Your task to perform on an android device: What time is it in London? Image 0: 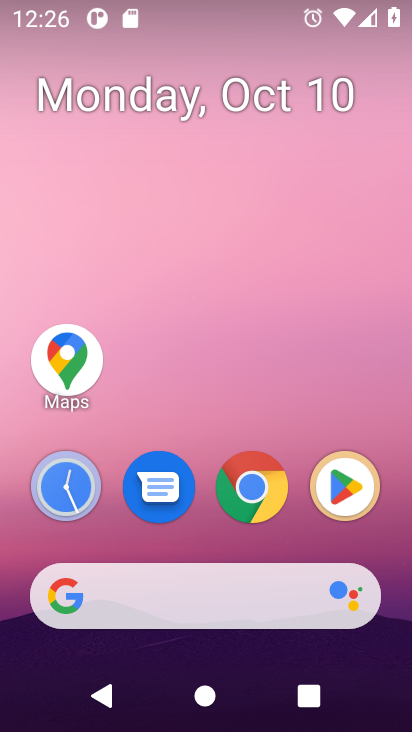
Step 0: drag from (218, 556) to (251, 39)
Your task to perform on an android device: What time is it in London? Image 1: 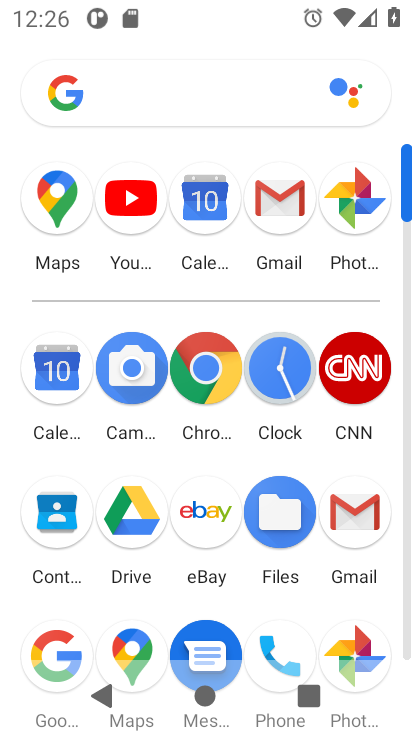
Step 1: click (54, 645)
Your task to perform on an android device: What time is it in London? Image 2: 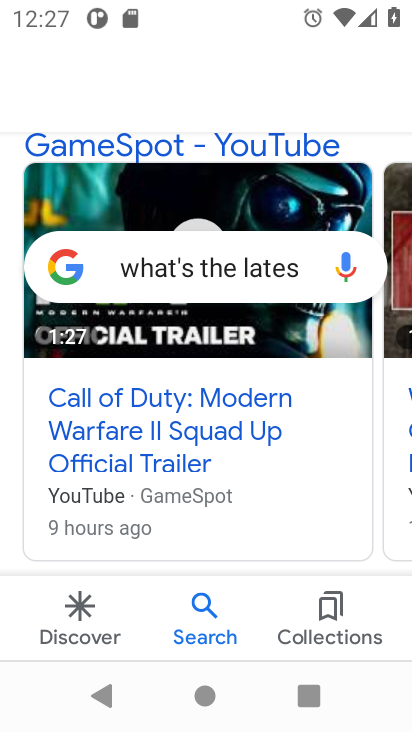
Step 2: click (234, 272)
Your task to perform on an android device: What time is it in London? Image 3: 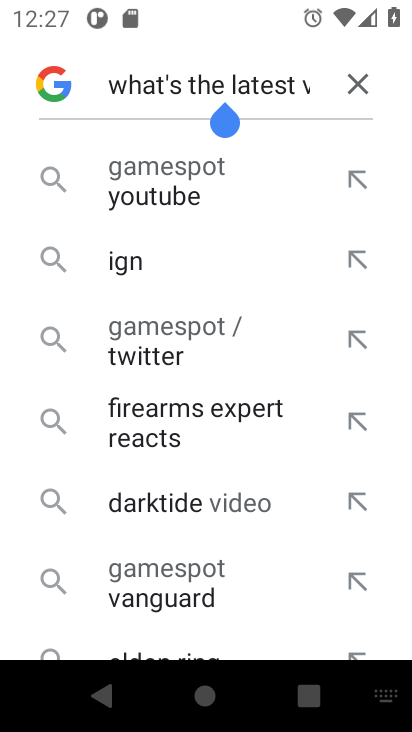
Step 3: click (355, 77)
Your task to perform on an android device: What time is it in London? Image 4: 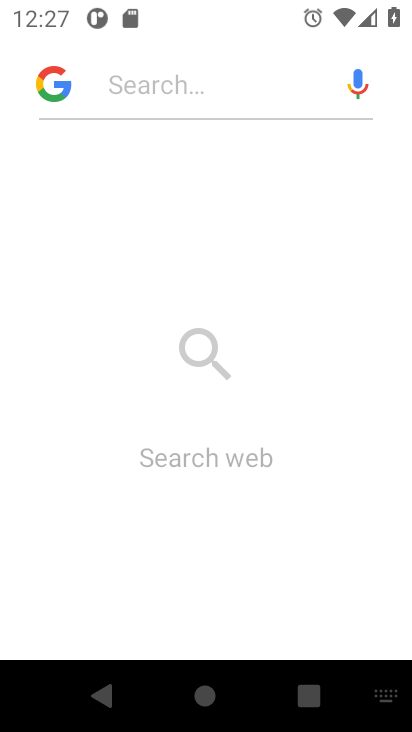
Step 4: type "What time is it in London?"
Your task to perform on an android device: What time is it in London? Image 5: 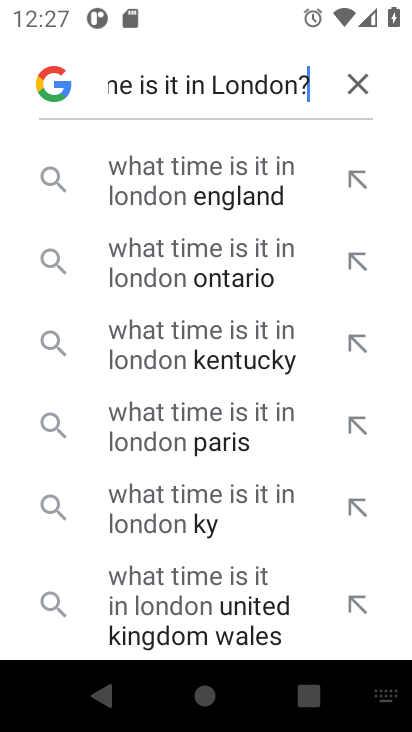
Step 5: type ""
Your task to perform on an android device: What time is it in London? Image 6: 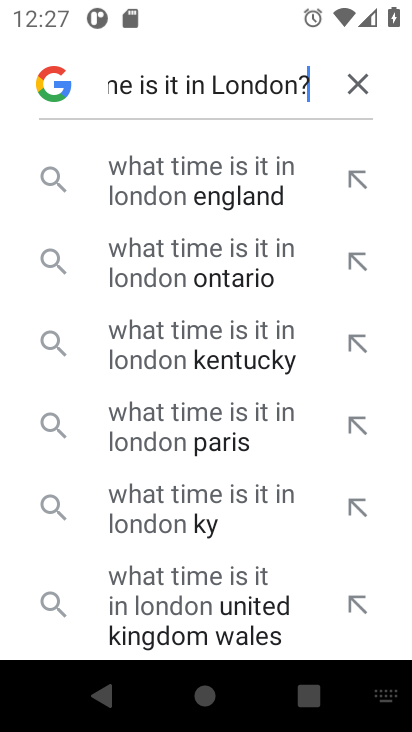
Step 6: click (160, 167)
Your task to perform on an android device: What time is it in London? Image 7: 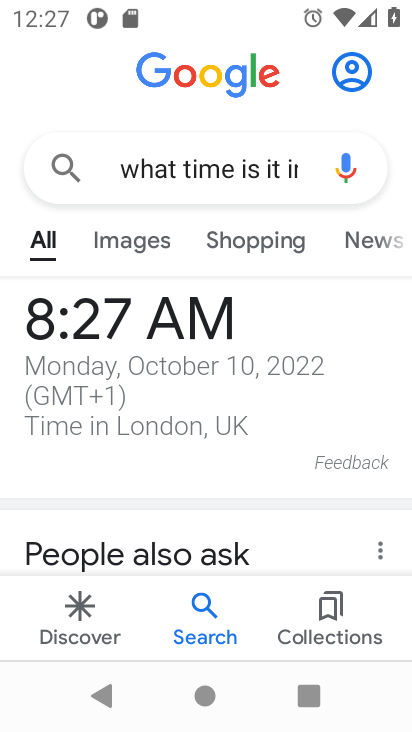
Step 7: task complete